Your task to perform on an android device: turn off wifi Image 0: 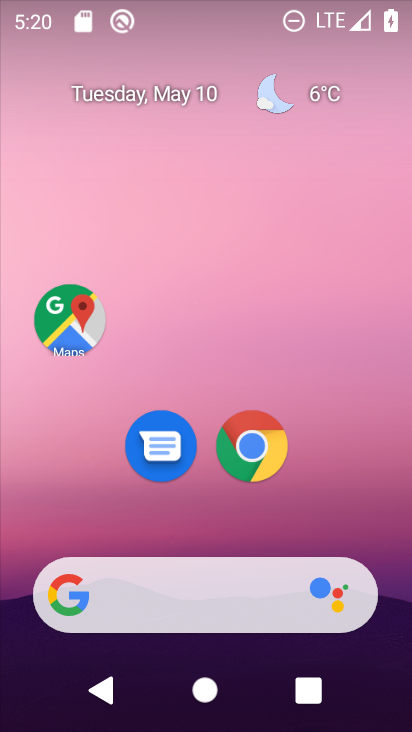
Step 0: drag from (222, 486) to (210, 83)
Your task to perform on an android device: turn off wifi Image 1: 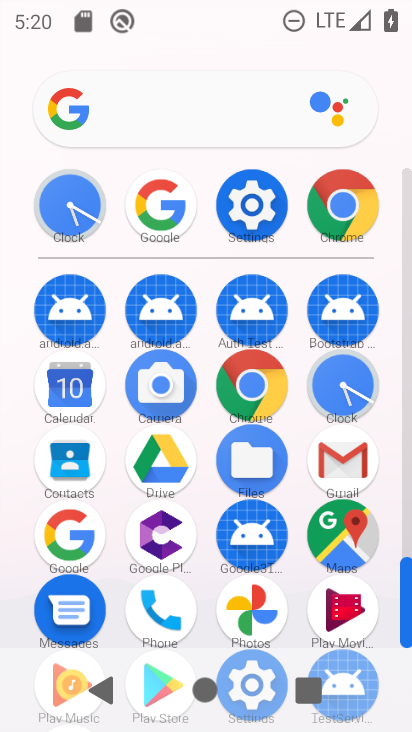
Step 1: click (252, 210)
Your task to perform on an android device: turn off wifi Image 2: 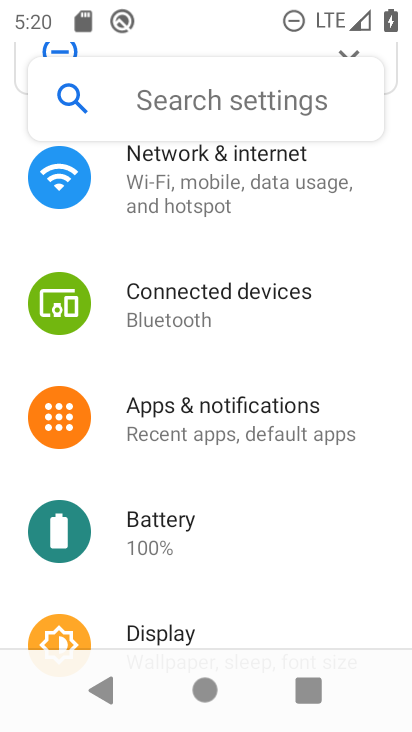
Step 2: click (214, 184)
Your task to perform on an android device: turn off wifi Image 3: 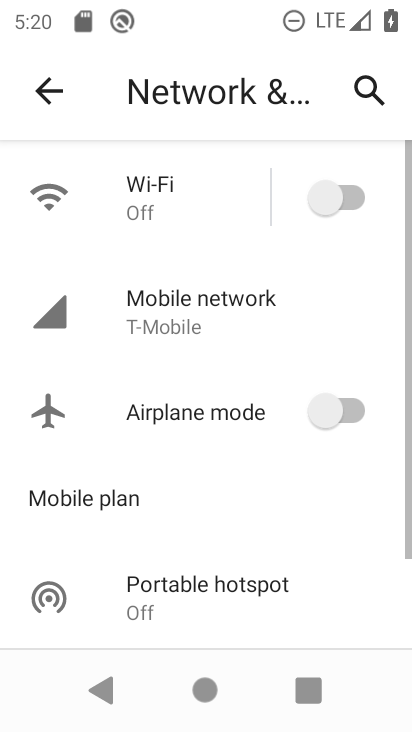
Step 3: task complete